Your task to perform on an android device: turn off smart reply in the gmail app Image 0: 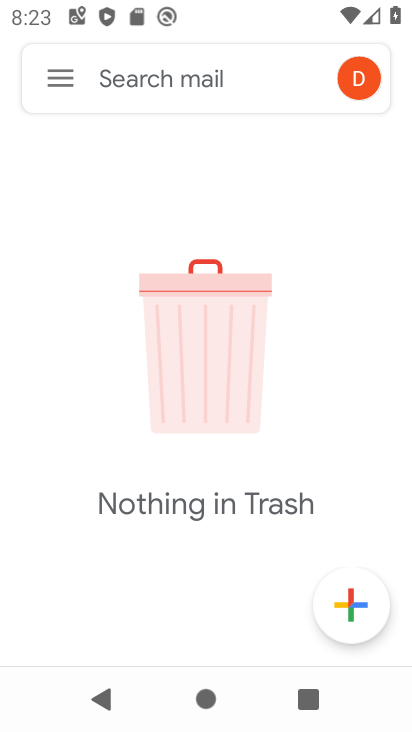
Step 0: click (69, 78)
Your task to perform on an android device: turn off smart reply in the gmail app Image 1: 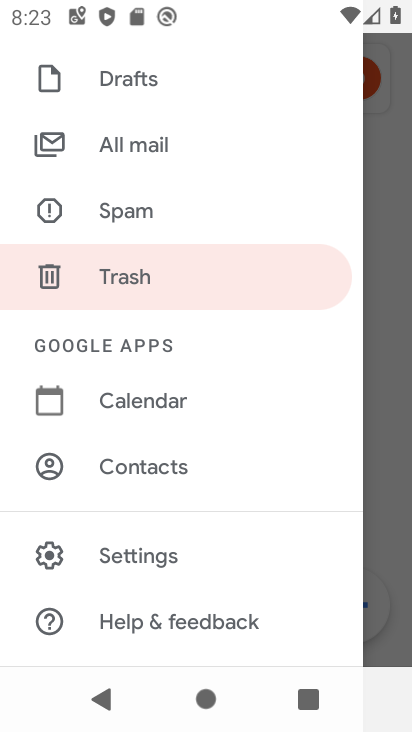
Step 1: click (167, 554)
Your task to perform on an android device: turn off smart reply in the gmail app Image 2: 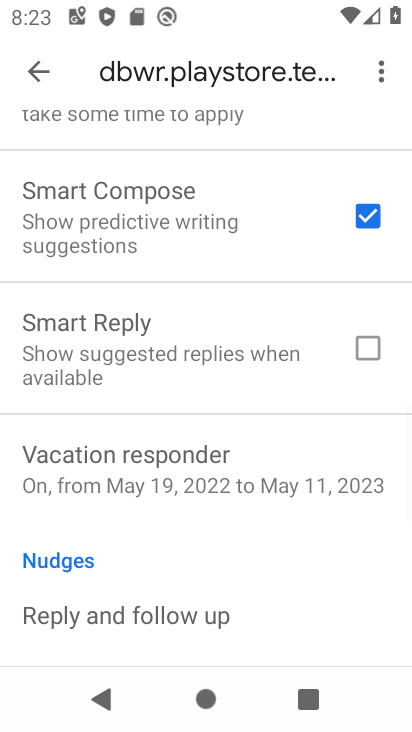
Step 2: click (167, 554)
Your task to perform on an android device: turn off smart reply in the gmail app Image 3: 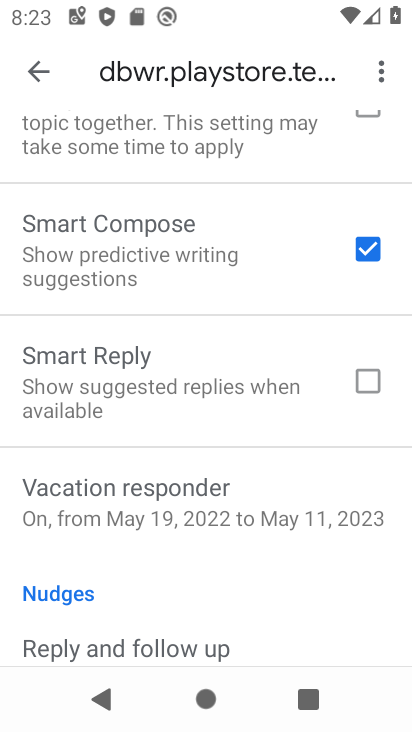
Step 3: task complete